Your task to perform on an android device: Open Yahoo.com Image 0: 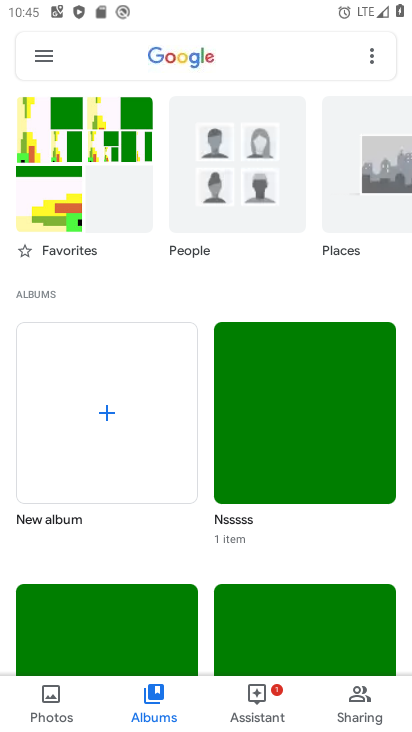
Step 0: press home button
Your task to perform on an android device: Open Yahoo.com Image 1: 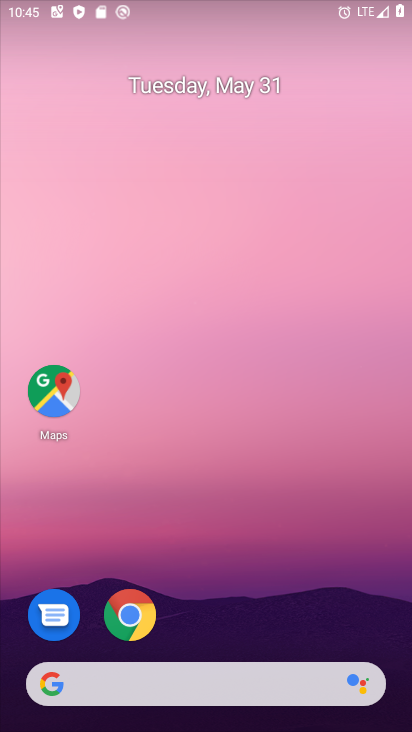
Step 1: drag from (356, 577) to (411, 87)
Your task to perform on an android device: Open Yahoo.com Image 2: 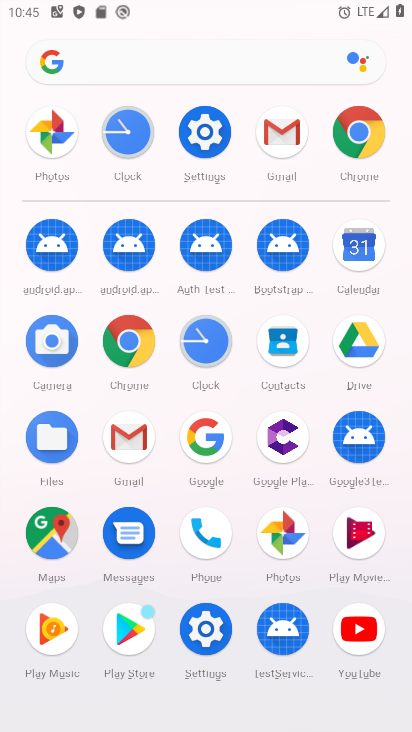
Step 2: click (375, 138)
Your task to perform on an android device: Open Yahoo.com Image 3: 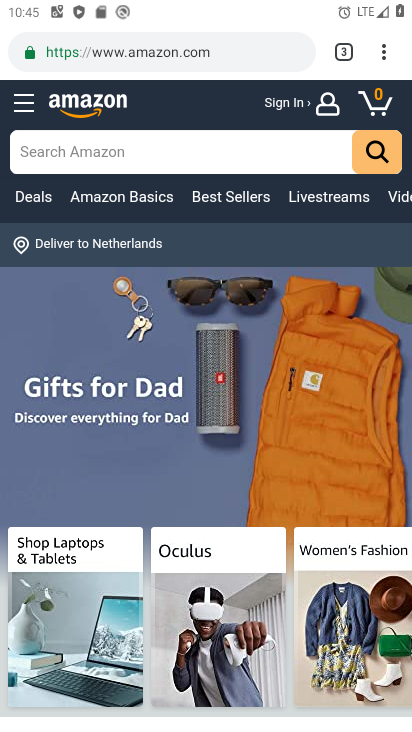
Step 3: click (111, 65)
Your task to perform on an android device: Open Yahoo.com Image 4: 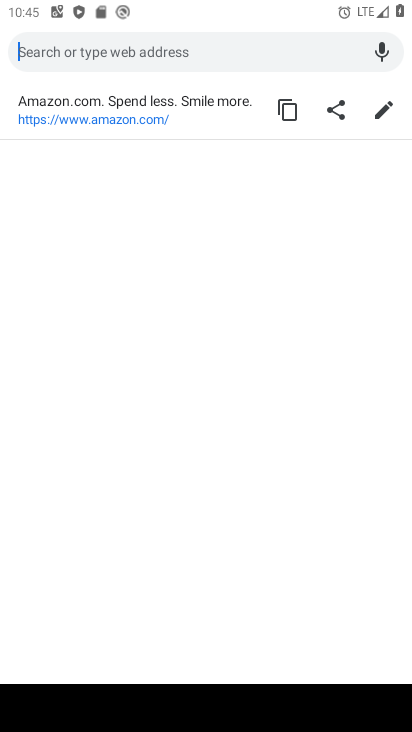
Step 4: type "yahoo"
Your task to perform on an android device: Open Yahoo.com Image 5: 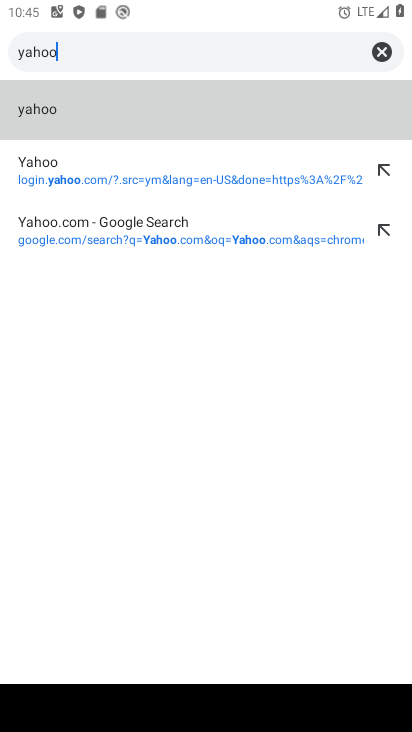
Step 5: click (76, 169)
Your task to perform on an android device: Open Yahoo.com Image 6: 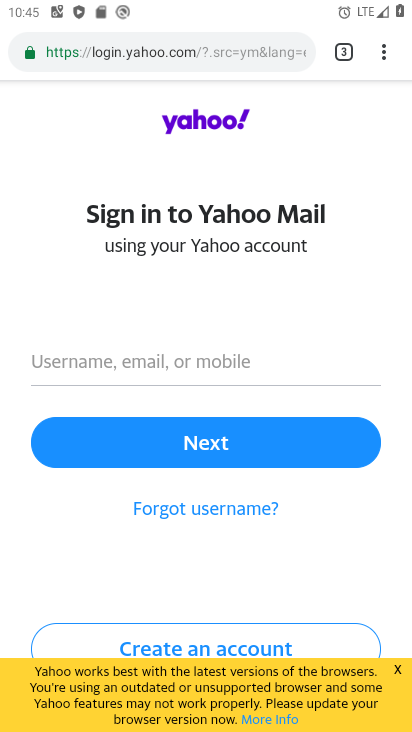
Step 6: task complete